Your task to perform on an android device: check battery use Image 0: 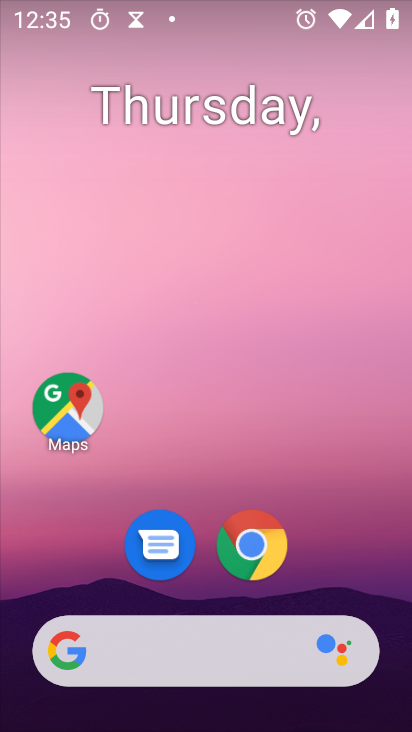
Step 0: press home button
Your task to perform on an android device: check battery use Image 1: 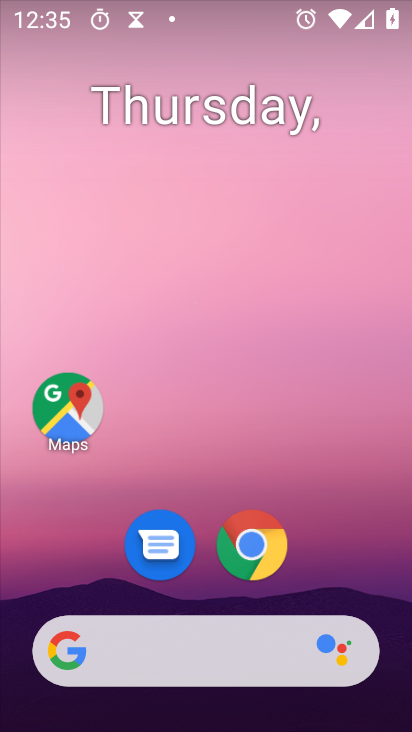
Step 1: drag from (188, 630) to (312, 168)
Your task to perform on an android device: check battery use Image 2: 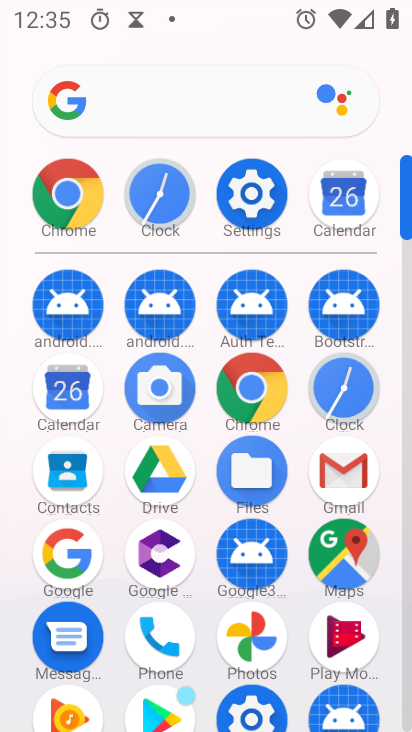
Step 2: click (251, 188)
Your task to perform on an android device: check battery use Image 3: 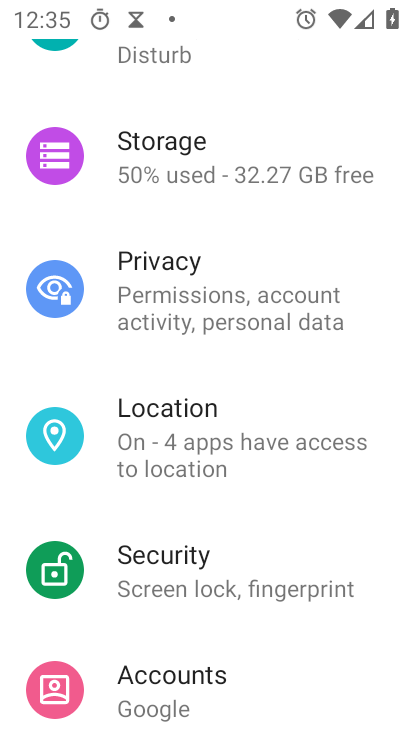
Step 3: drag from (303, 285) to (246, 631)
Your task to perform on an android device: check battery use Image 4: 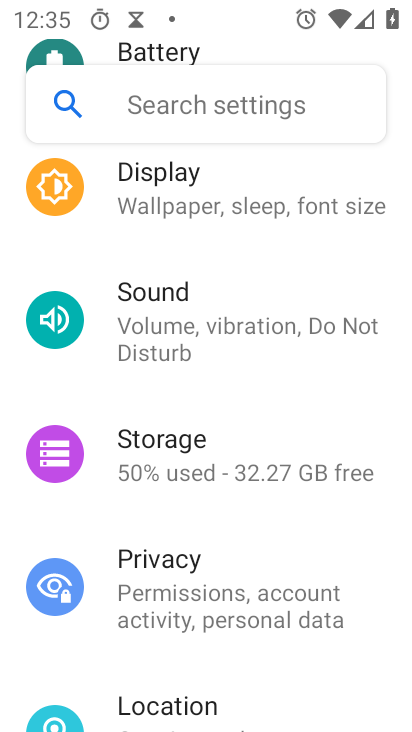
Step 4: drag from (239, 497) to (232, 626)
Your task to perform on an android device: check battery use Image 5: 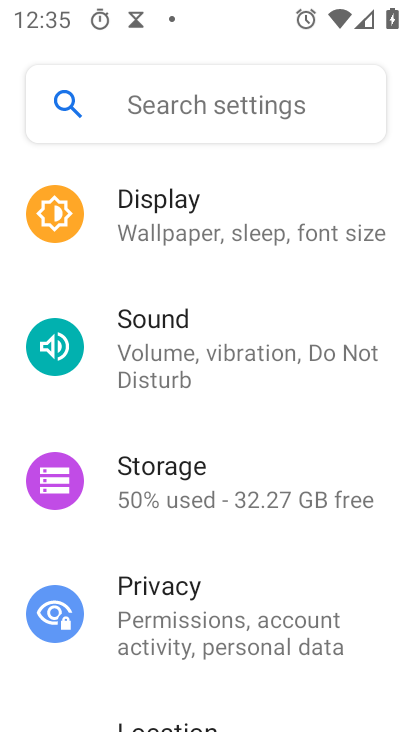
Step 5: drag from (275, 182) to (206, 558)
Your task to perform on an android device: check battery use Image 6: 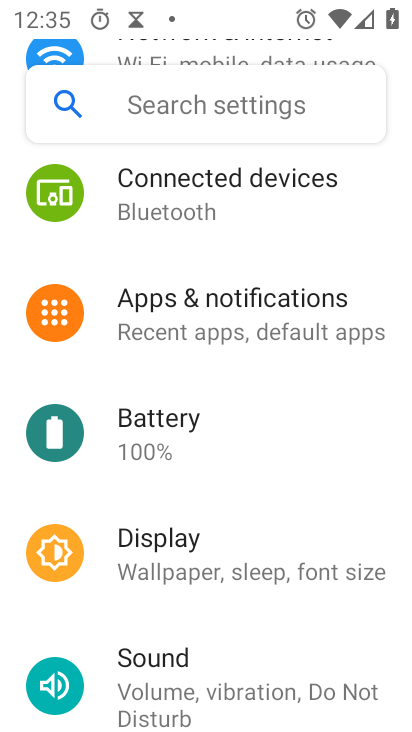
Step 6: click (183, 421)
Your task to perform on an android device: check battery use Image 7: 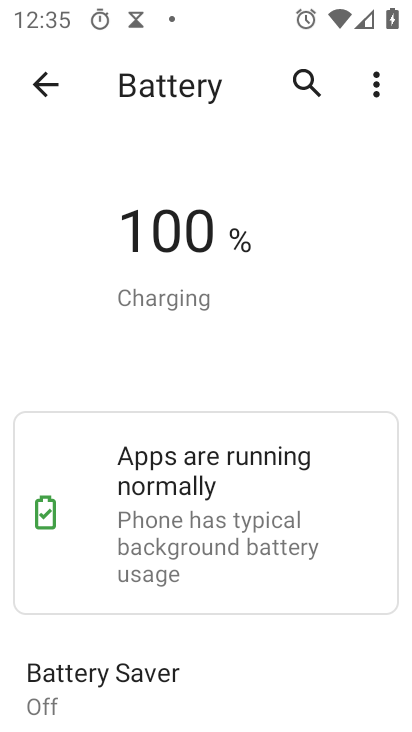
Step 7: click (154, 441)
Your task to perform on an android device: check battery use Image 8: 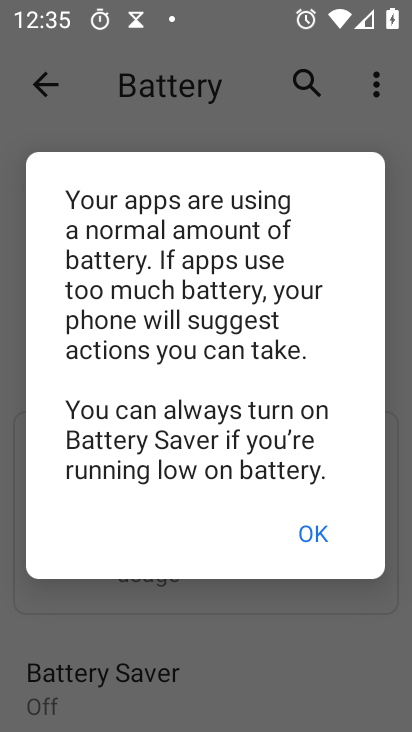
Step 8: click (169, 420)
Your task to perform on an android device: check battery use Image 9: 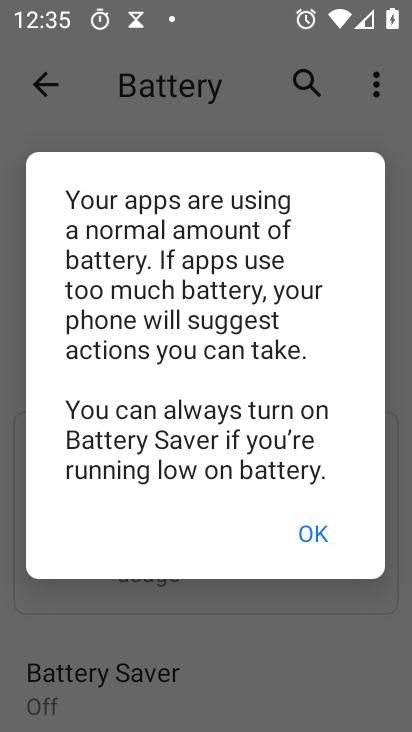
Step 9: click (325, 540)
Your task to perform on an android device: check battery use Image 10: 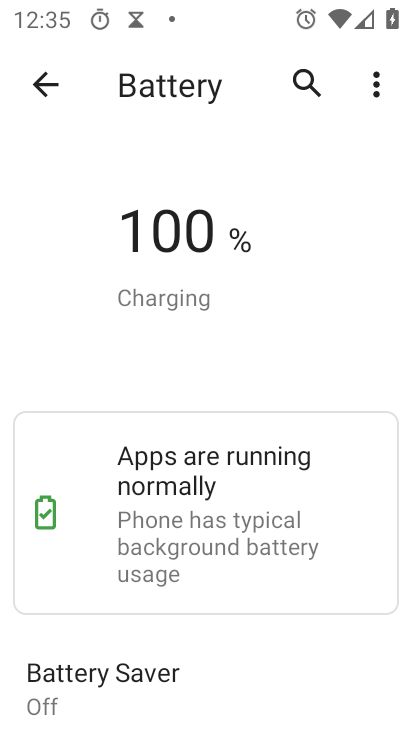
Step 10: click (376, 86)
Your task to perform on an android device: check battery use Image 11: 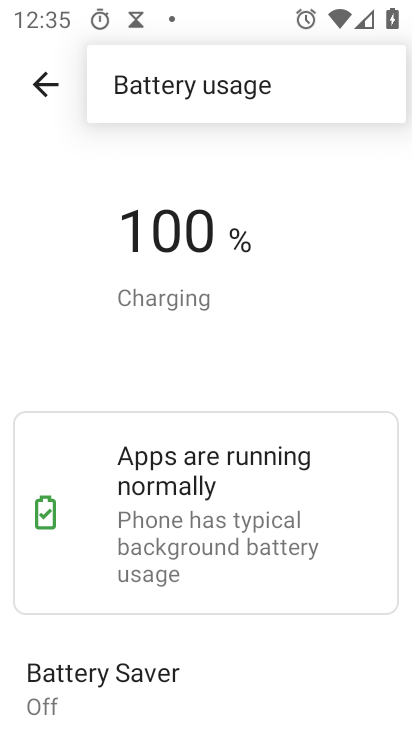
Step 11: click (237, 81)
Your task to perform on an android device: check battery use Image 12: 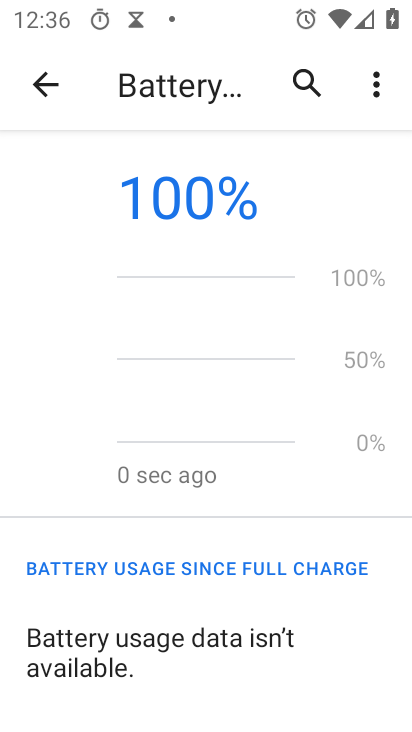
Step 12: task complete